Your task to perform on an android device: Turn off the flashlight Image 0: 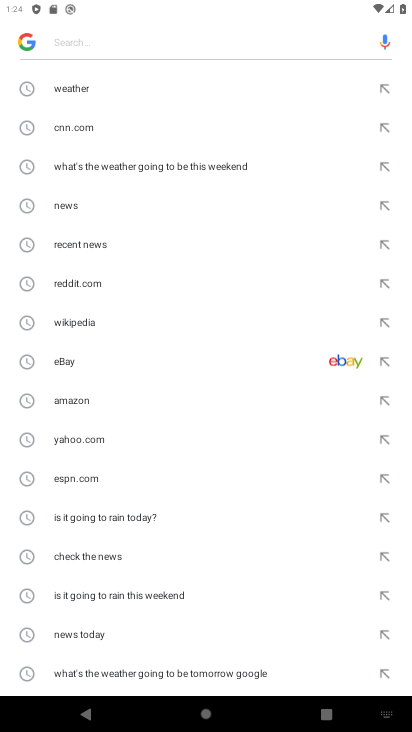
Step 0: press home button
Your task to perform on an android device: Turn off the flashlight Image 1: 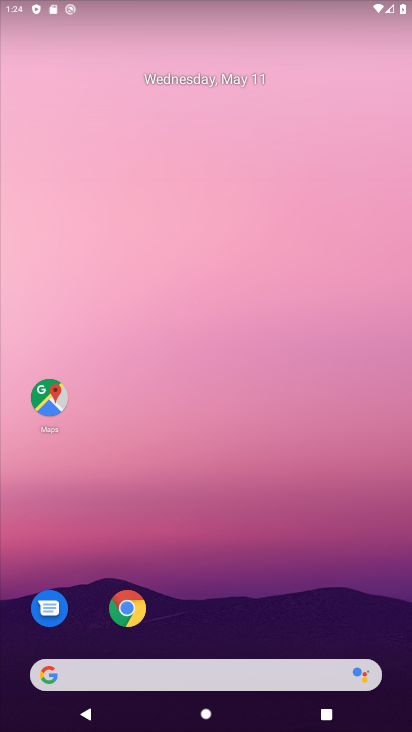
Step 1: drag from (243, 588) to (264, 11)
Your task to perform on an android device: Turn off the flashlight Image 2: 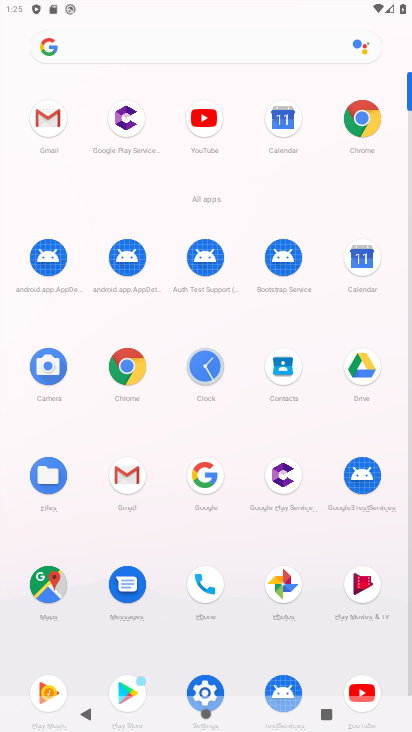
Step 2: click (213, 686)
Your task to perform on an android device: Turn off the flashlight Image 3: 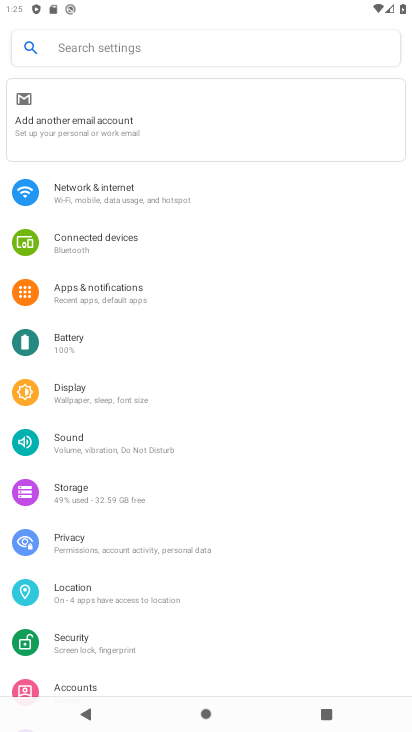
Step 3: click (104, 293)
Your task to perform on an android device: Turn off the flashlight Image 4: 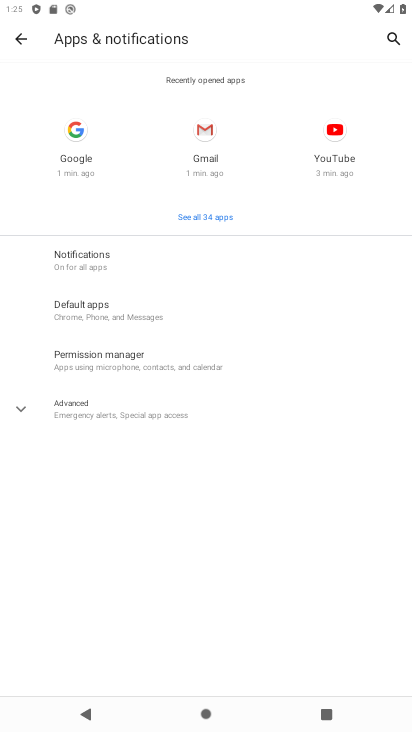
Step 4: click (145, 417)
Your task to perform on an android device: Turn off the flashlight Image 5: 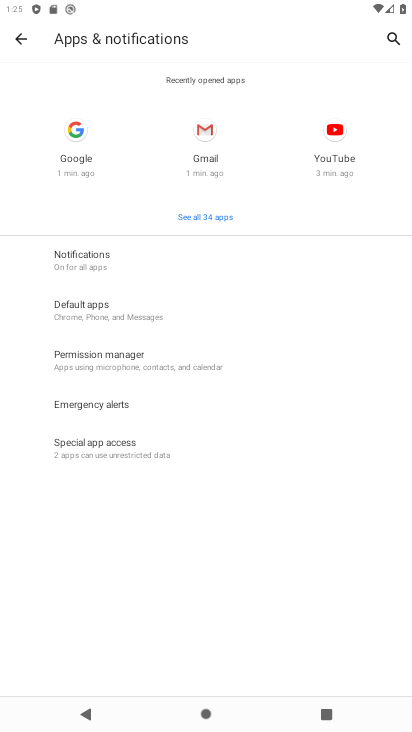
Step 5: task complete